Your task to perform on an android device: What's the weather going to be tomorrow? Image 0: 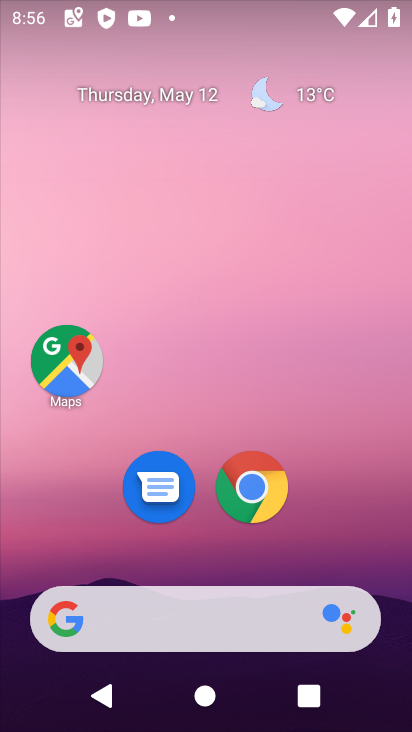
Step 0: click (311, 103)
Your task to perform on an android device: What's the weather going to be tomorrow? Image 1: 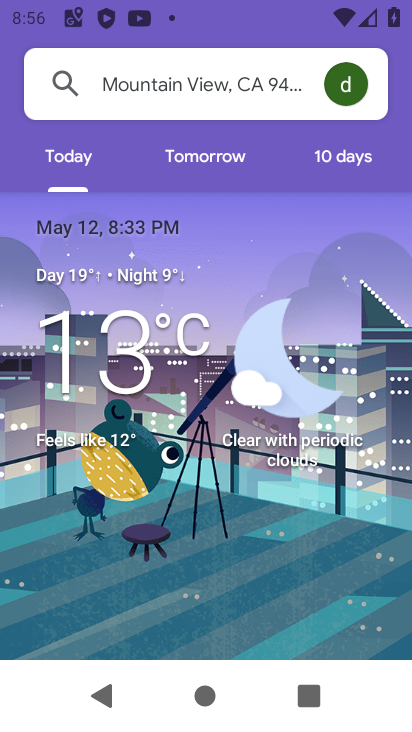
Step 1: click (179, 155)
Your task to perform on an android device: What's the weather going to be tomorrow? Image 2: 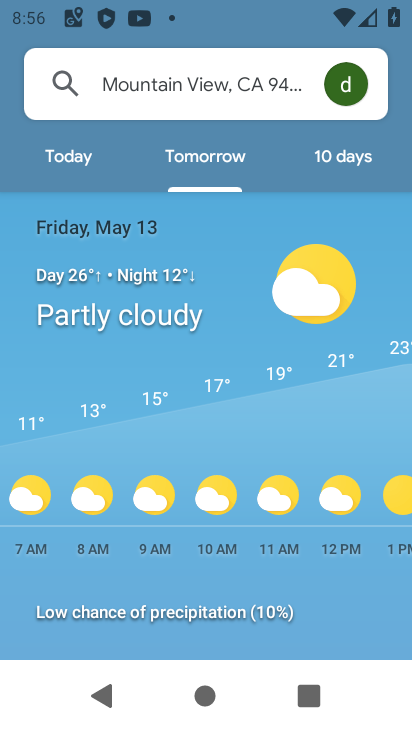
Step 2: task complete